Your task to perform on an android device: Open Chrome and go to the settings page Image 0: 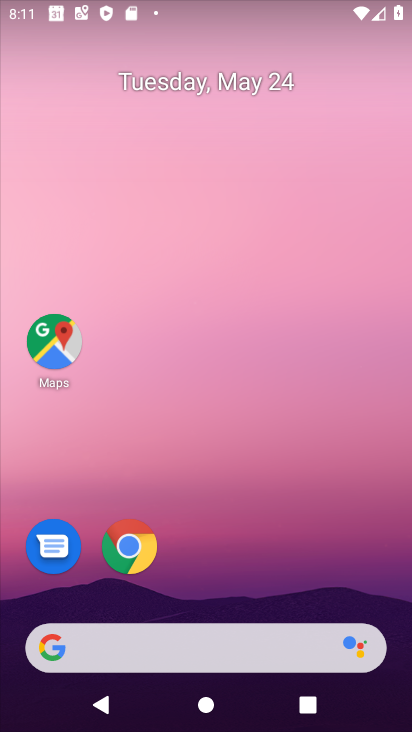
Step 0: click (126, 538)
Your task to perform on an android device: Open Chrome and go to the settings page Image 1: 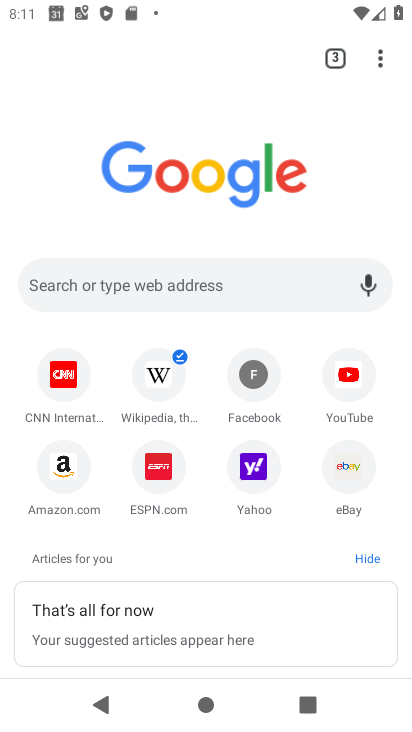
Step 1: click (380, 55)
Your task to perform on an android device: Open Chrome and go to the settings page Image 2: 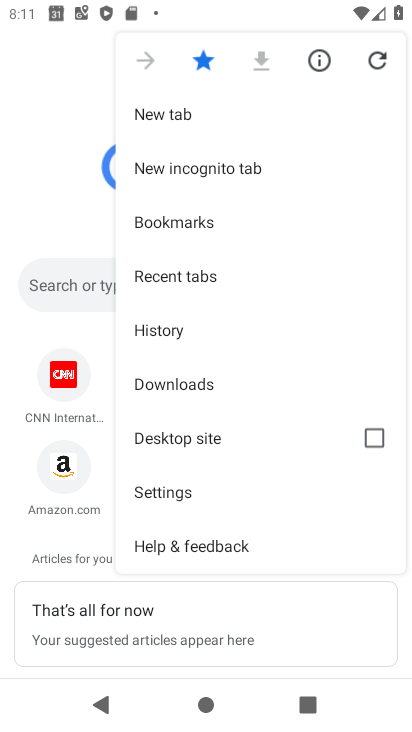
Step 2: click (199, 483)
Your task to perform on an android device: Open Chrome and go to the settings page Image 3: 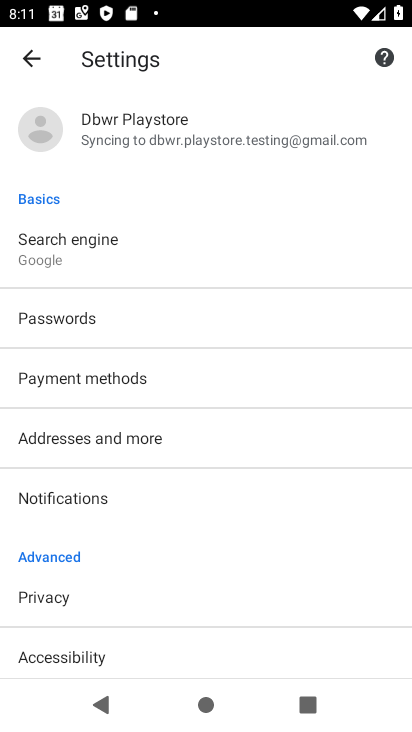
Step 3: task complete